Your task to perform on an android device: Go to calendar. Show me events next week Image 0: 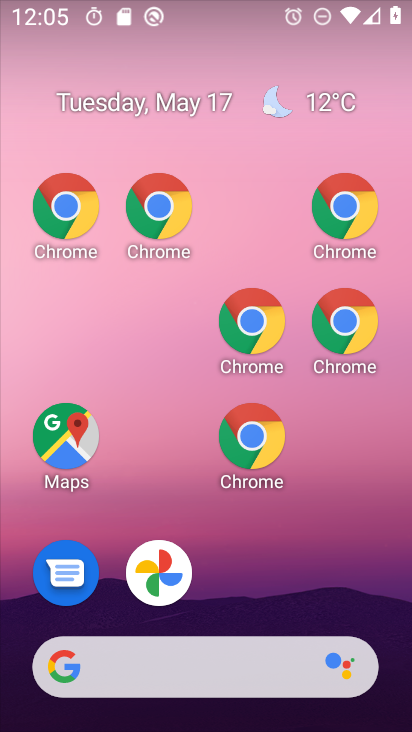
Step 0: drag from (316, 720) to (149, 125)
Your task to perform on an android device: Go to calendar. Show me events next week Image 1: 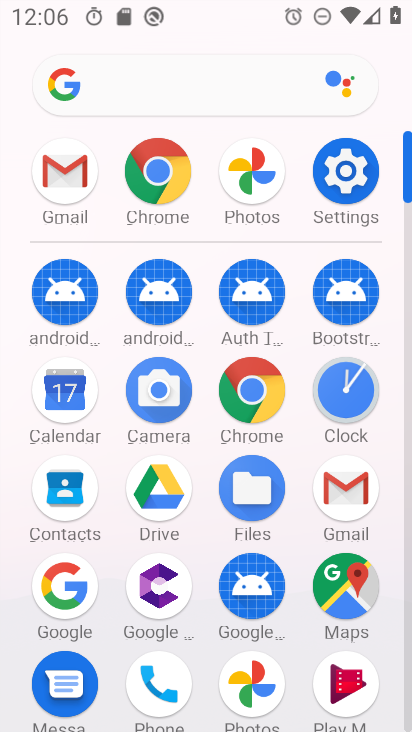
Step 1: click (60, 391)
Your task to perform on an android device: Go to calendar. Show me events next week Image 2: 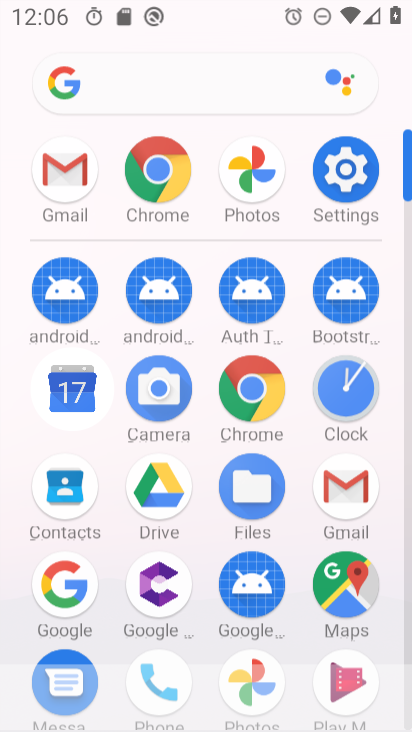
Step 2: click (70, 387)
Your task to perform on an android device: Go to calendar. Show me events next week Image 3: 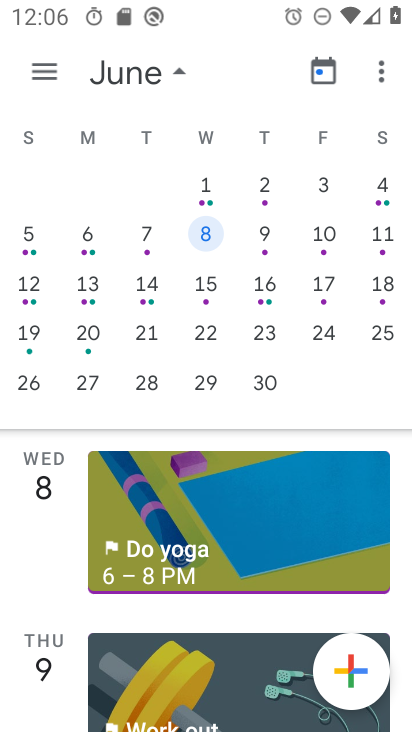
Step 3: click (51, 361)
Your task to perform on an android device: Go to calendar. Show me events next week Image 4: 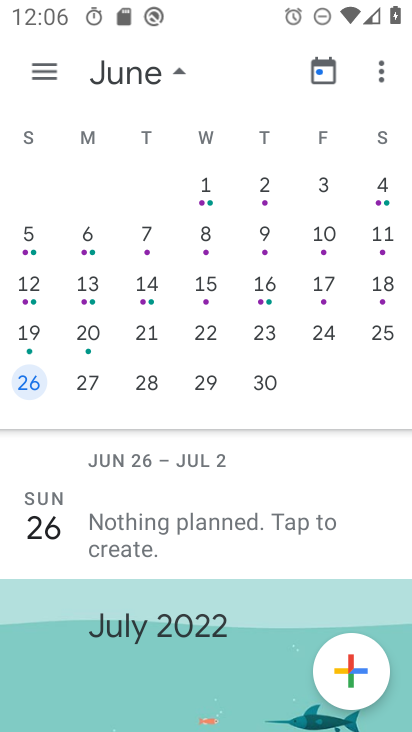
Step 4: drag from (50, 355) to (88, 416)
Your task to perform on an android device: Go to calendar. Show me events next week Image 5: 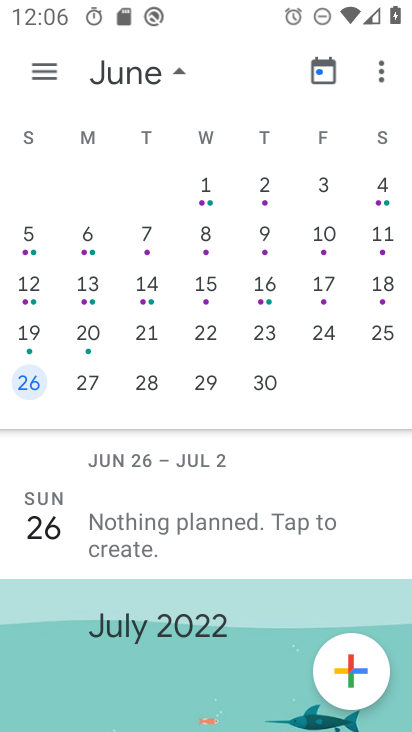
Step 5: drag from (217, 549) to (92, 103)
Your task to perform on an android device: Go to calendar. Show me events next week Image 6: 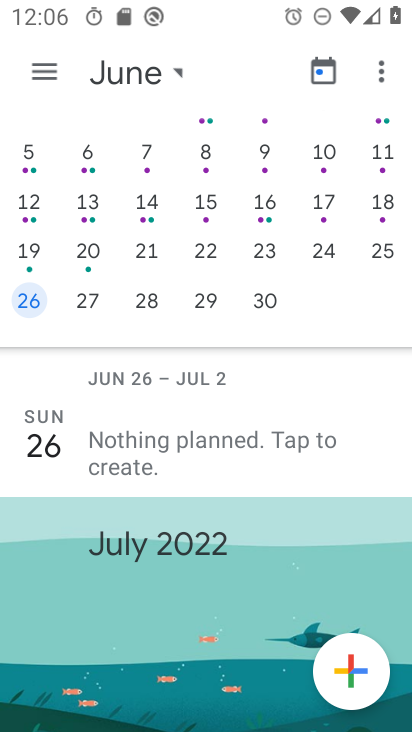
Step 6: click (181, 56)
Your task to perform on an android device: Go to calendar. Show me events next week Image 7: 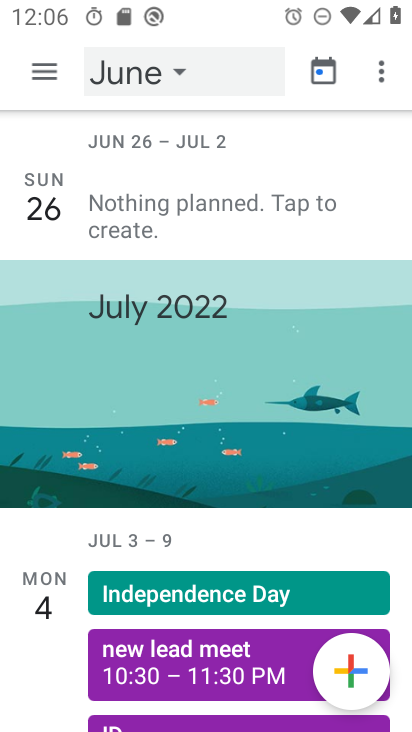
Step 7: click (252, 213)
Your task to perform on an android device: Go to calendar. Show me events next week Image 8: 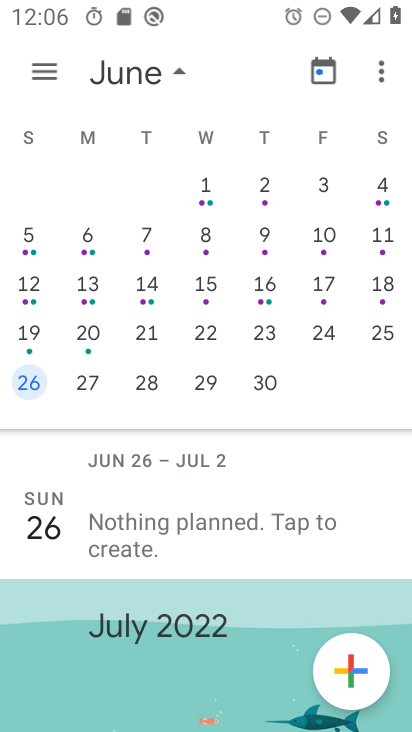
Step 8: task complete